Your task to perform on an android device: Show me the alarms in the clock app Image 0: 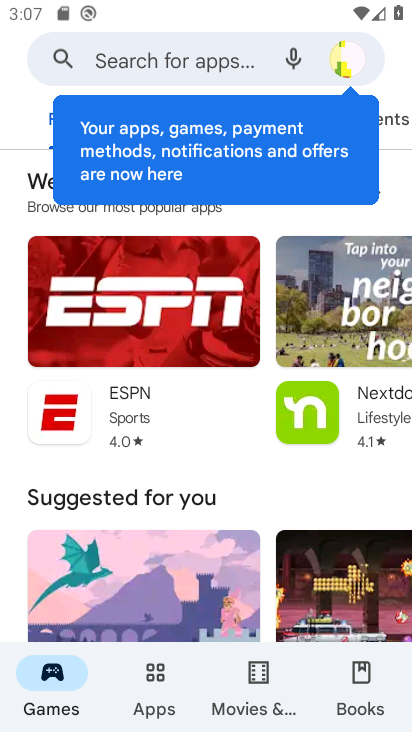
Step 0: press home button
Your task to perform on an android device: Show me the alarms in the clock app Image 1: 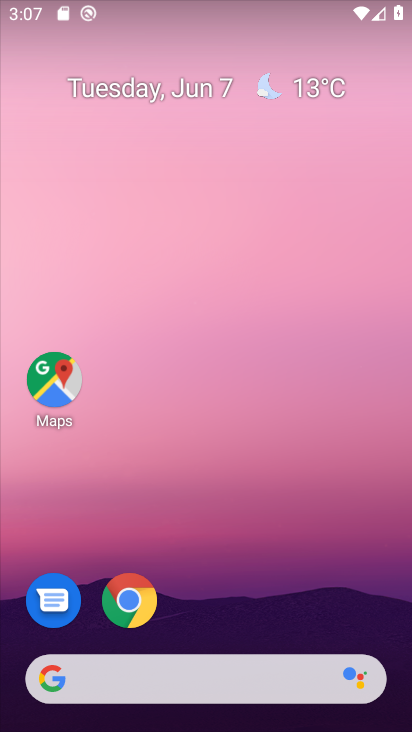
Step 1: drag from (261, 554) to (311, 79)
Your task to perform on an android device: Show me the alarms in the clock app Image 2: 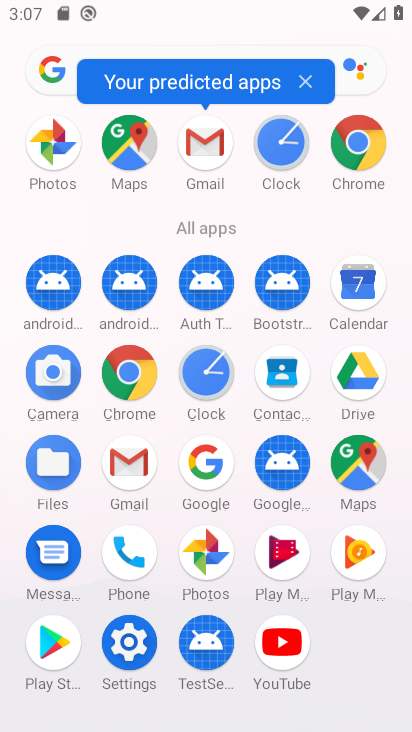
Step 2: click (204, 365)
Your task to perform on an android device: Show me the alarms in the clock app Image 3: 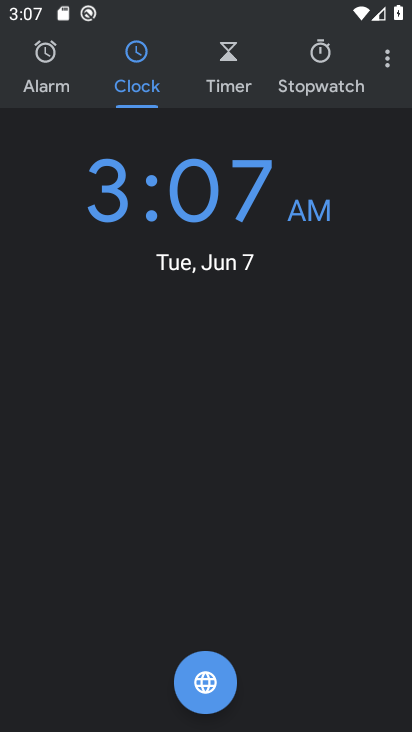
Step 3: click (57, 70)
Your task to perform on an android device: Show me the alarms in the clock app Image 4: 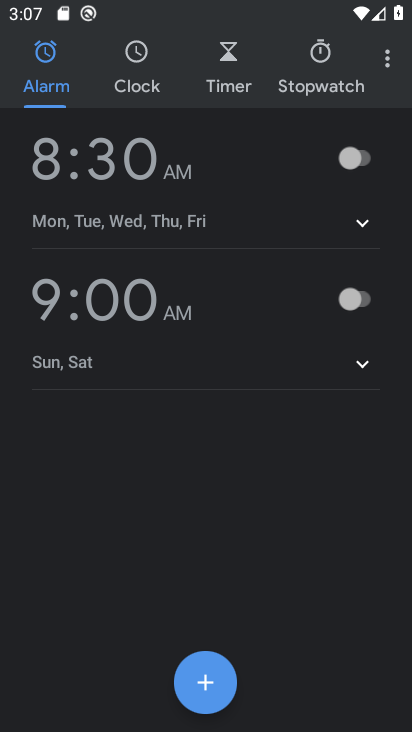
Step 4: task complete